Your task to perform on an android device: turn on notifications settings in the gmail app Image 0: 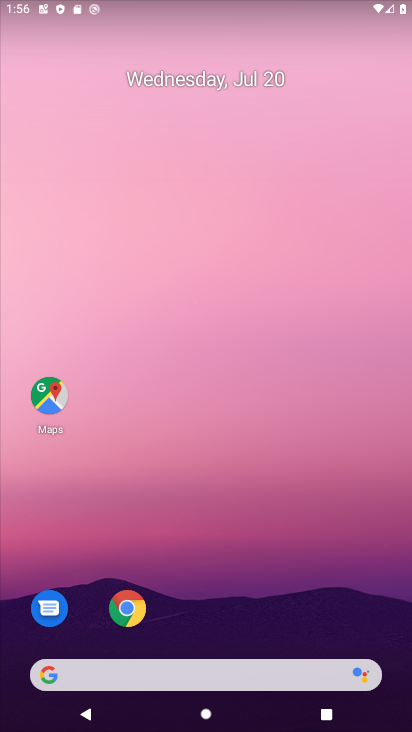
Step 0: task complete